Your task to perform on an android device: toggle show notifications on the lock screen Image 0: 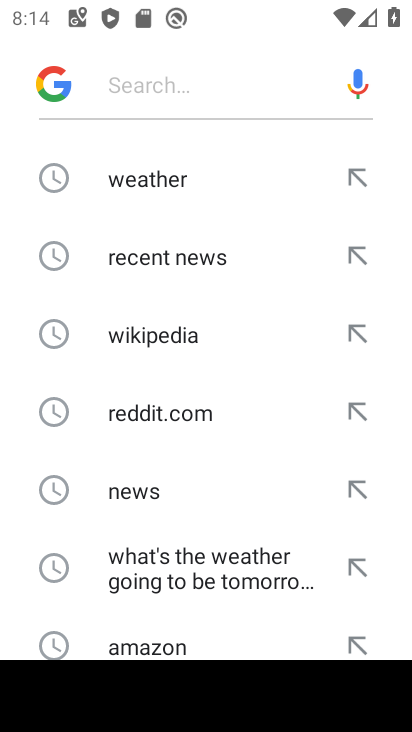
Step 0: press back button
Your task to perform on an android device: toggle show notifications on the lock screen Image 1: 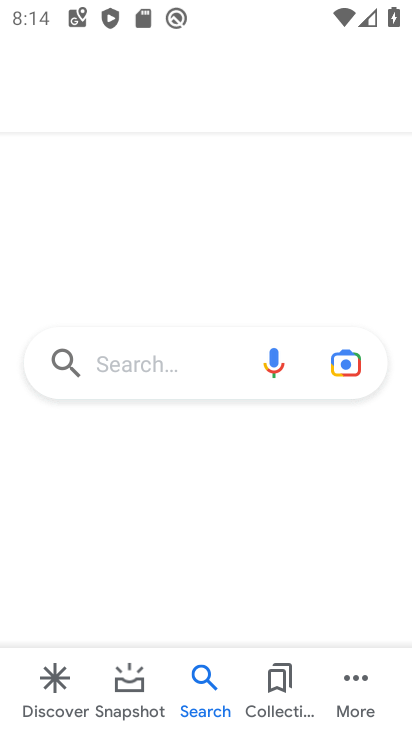
Step 1: press back button
Your task to perform on an android device: toggle show notifications on the lock screen Image 2: 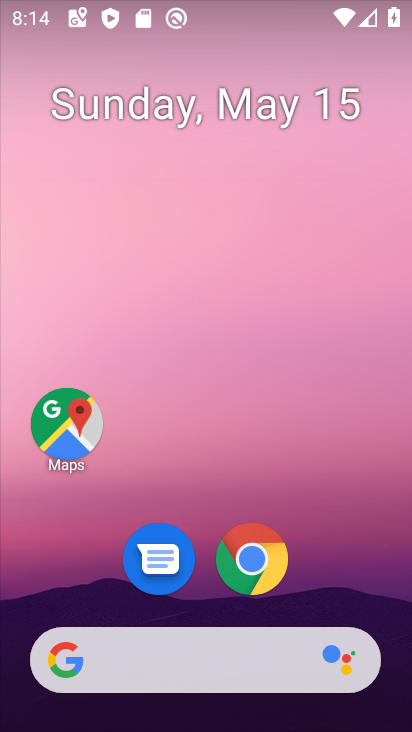
Step 2: drag from (355, 582) to (315, 189)
Your task to perform on an android device: toggle show notifications on the lock screen Image 3: 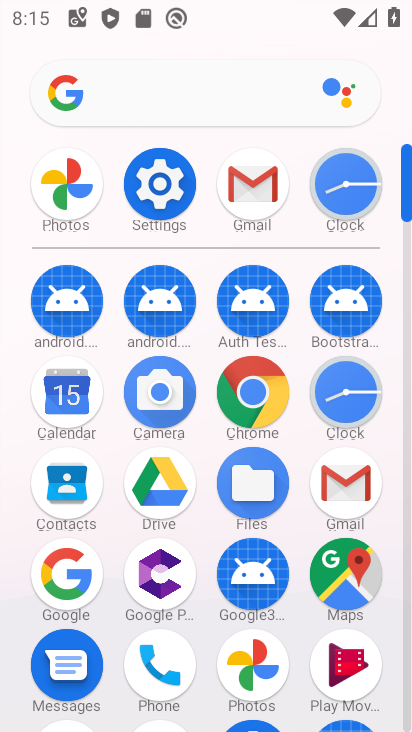
Step 3: click (166, 199)
Your task to perform on an android device: toggle show notifications on the lock screen Image 4: 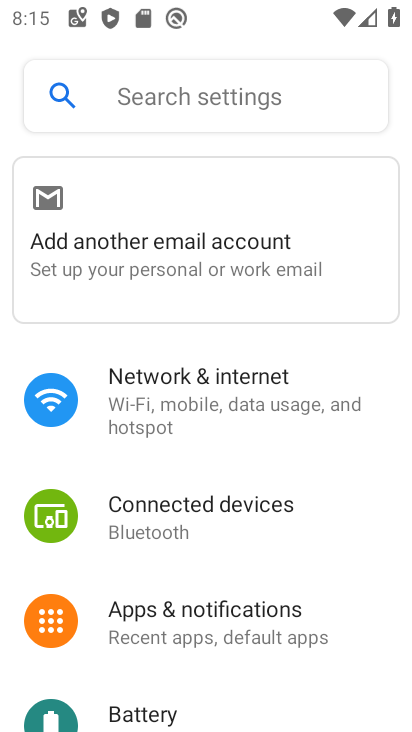
Step 4: click (232, 632)
Your task to perform on an android device: toggle show notifications on the lock screen Image 5: 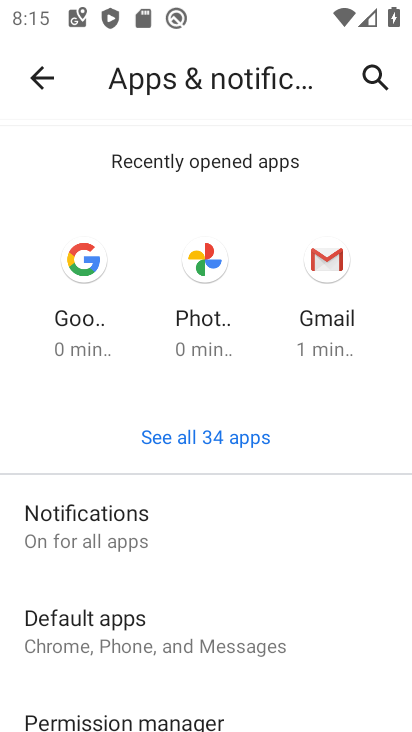
Step 5: drag from (230, 647) to (179, 436)
Your task to perform on an android device: toggle show notifications on the lock screen Image 6: 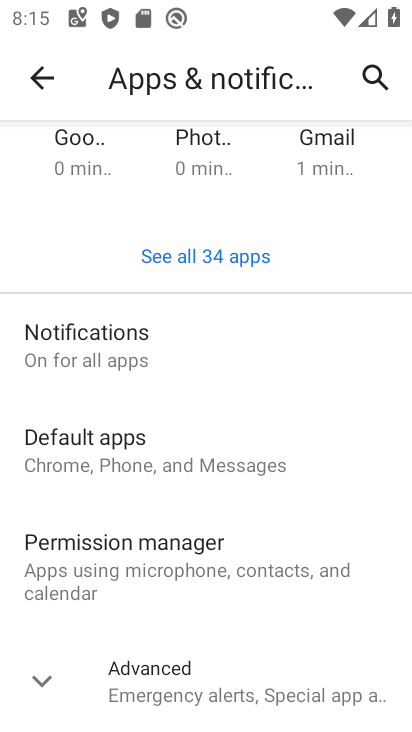
Step 6: click (225, 675)
Your task to perform on an android device: toggle show notifications on the lock screen Image 7: 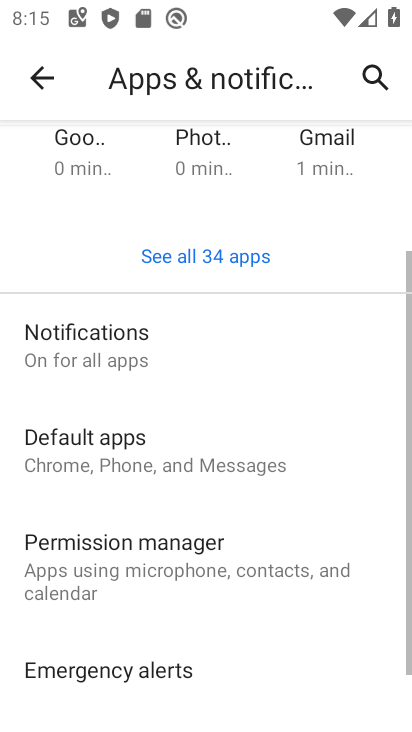
Step 7: drag from (225, 675) to (235, 202)
Your task to perform on an android device: toggle show notifications on the lock screen Image 8: 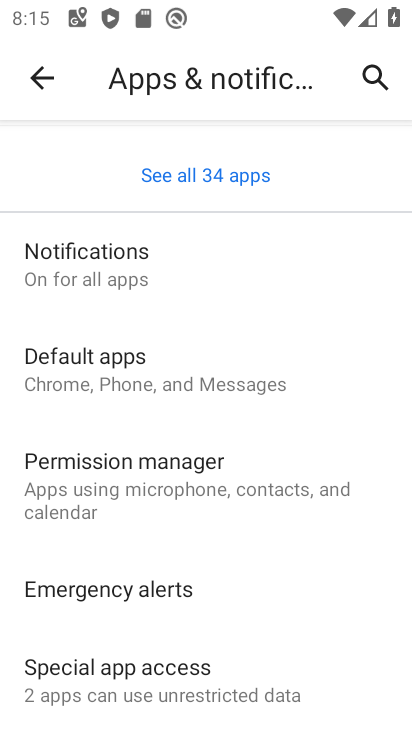
Step 8: click (192, 252)
Your task to perform on an android device: toggle show notifications on the lock screen Image 9: 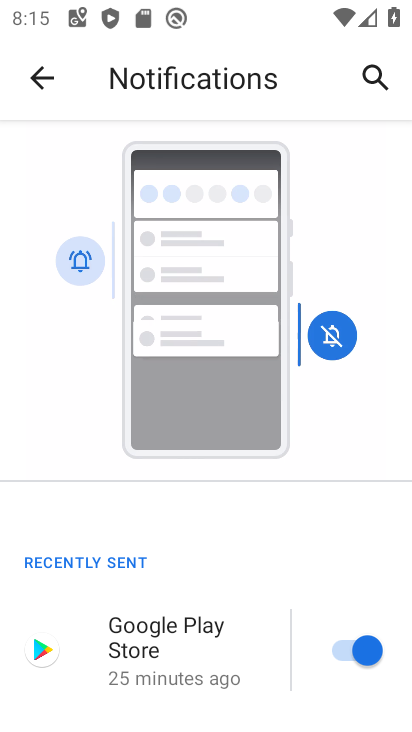
Step 9: drag from (175, 503) to (153, 175)
Your task to perform on an android device: toggle show notifications on the lock screen Image 10: 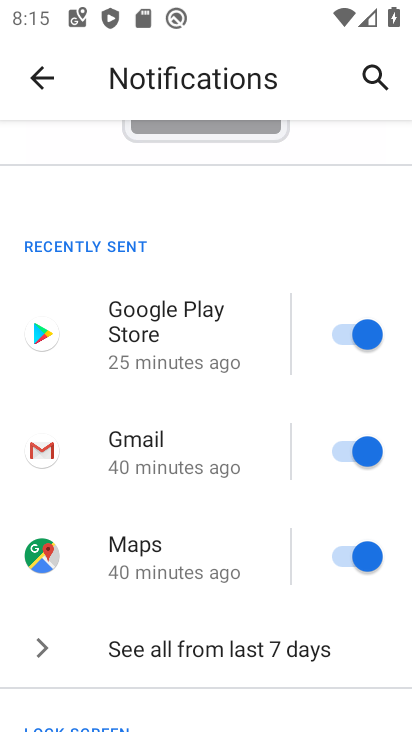
Step 10: drag from (162, 469) to (119, 193)
Your task to perform on an android device: toggle show notifications on the lock screen Image 11: 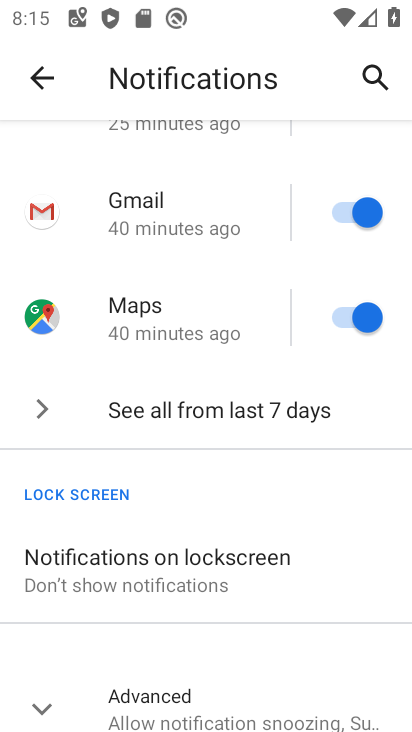
Step 11: click (129, 612)
Your task to perform on an android device: toggle show notifications on the lock screen Image 12: 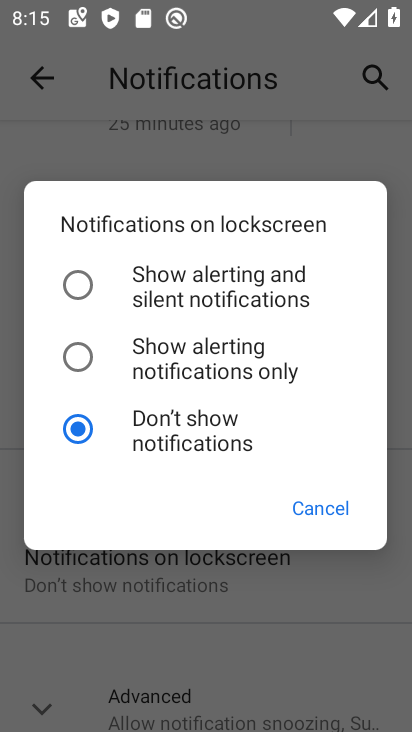
Step 12: click (193, 353)
Your task to perform on an android device: toggle show notifications on the lock screen Image 13: 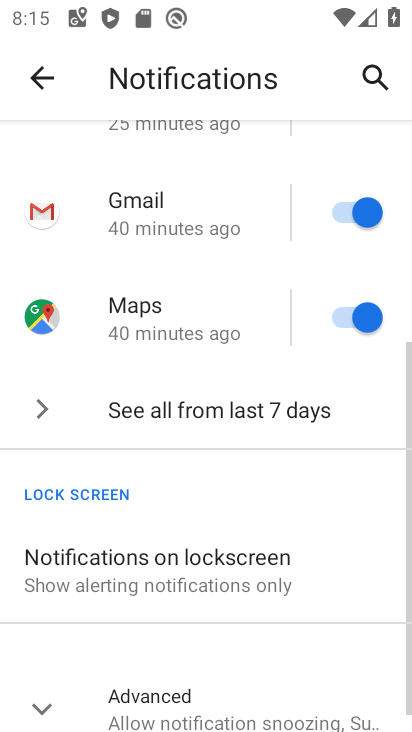
Step 13: task complete